Your task to perform on an android device: delete a single message in the gmail app Image 0: 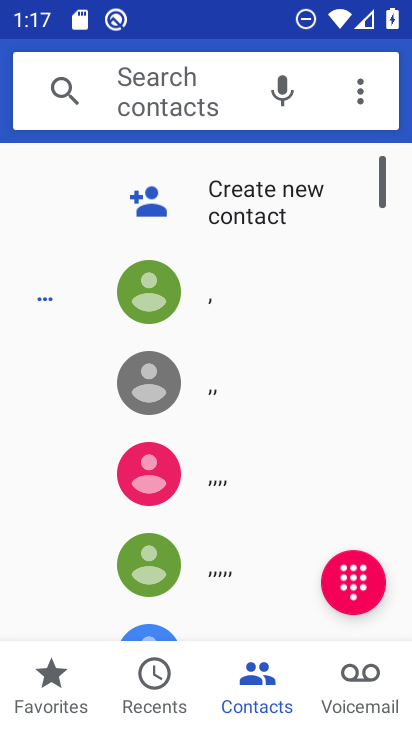
Step 0: press home button
Your task to perform on an android device: delete a single message in the gmail app Image 1: 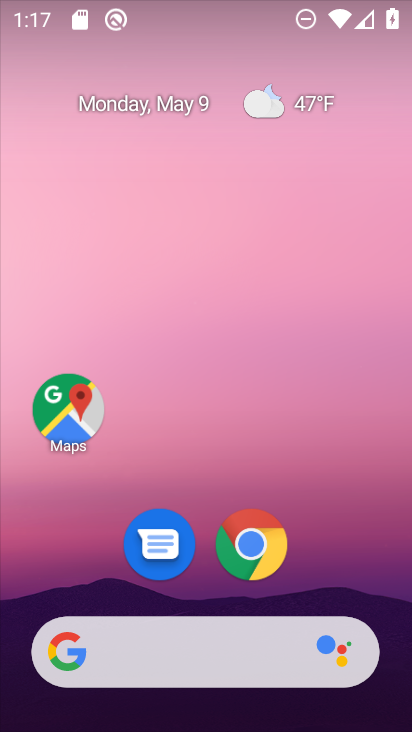
Step 1: drag from (357, 471) to (411, 163)
Your task to perform on an android device: delete a single message in the gmail app Image 2: 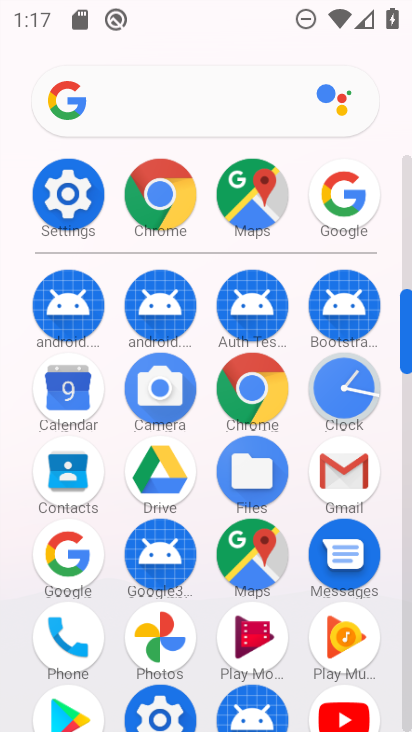
Step 2: click (322, 460)
Your task to perform on an android device: delete a single message in the gmail app Image 3: 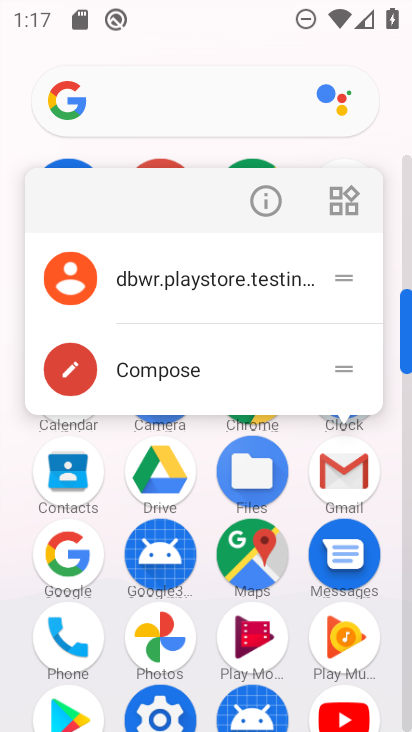
Step 3: click (337, 478)
Your task to perform on an android device: delete a single message in the gmail app Image 4: 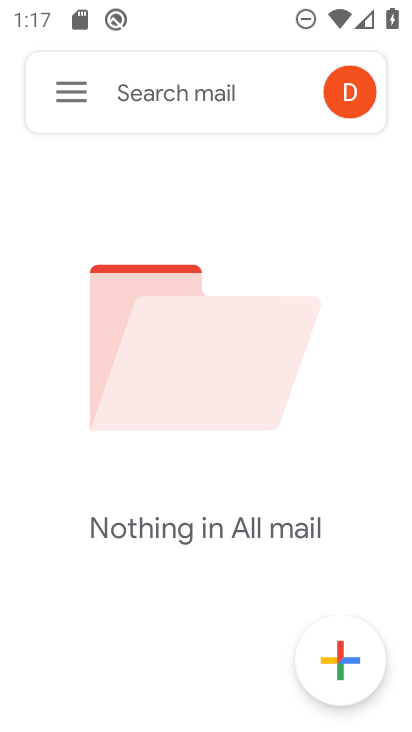
Step 4: task complete